Your task to perform on an android device: Go to sound settings Image 0: 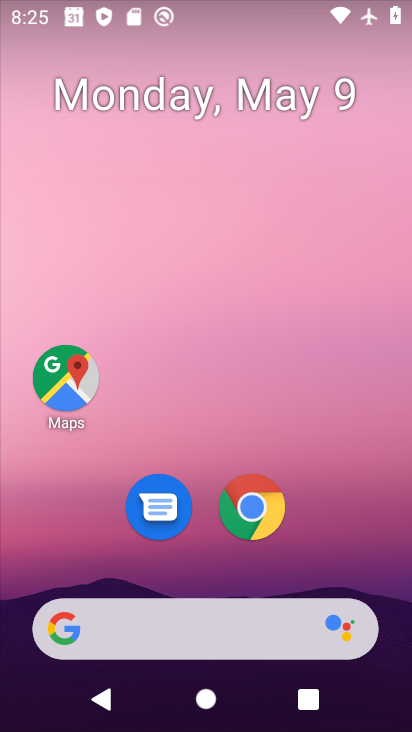
Step 0: drag from (208, 555) to (213, 0)
Your task to perform on an android device: Go to sound settings Image 1: 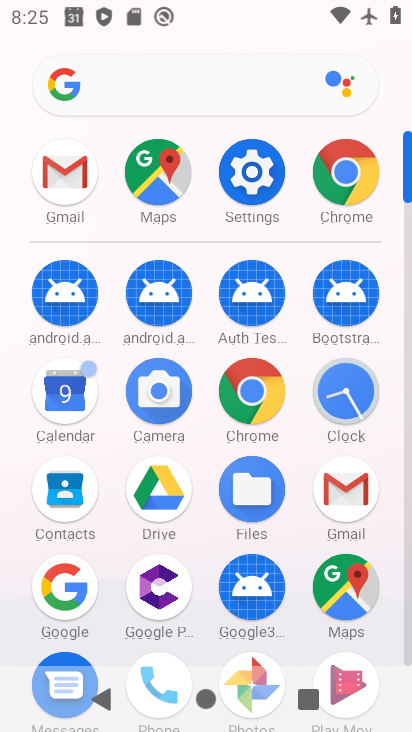
Step 1: click (261, 186)
Your task to perform on an android device: Go to sound settings Image 2: 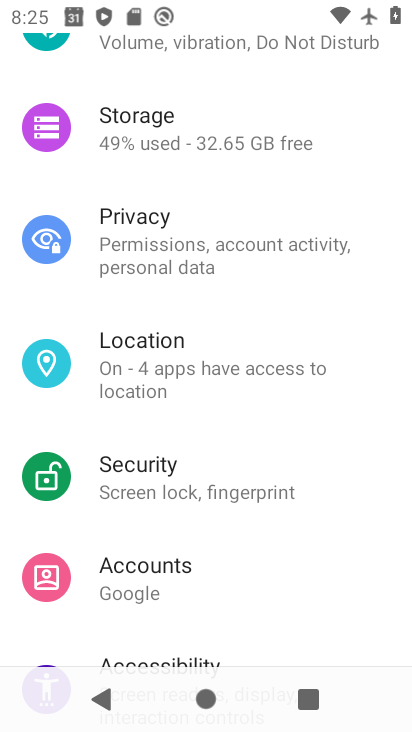
Step 2: drag from (256, 207) to (229, 604)
Your task to perform on an android device: Go to sound settings Image 3: 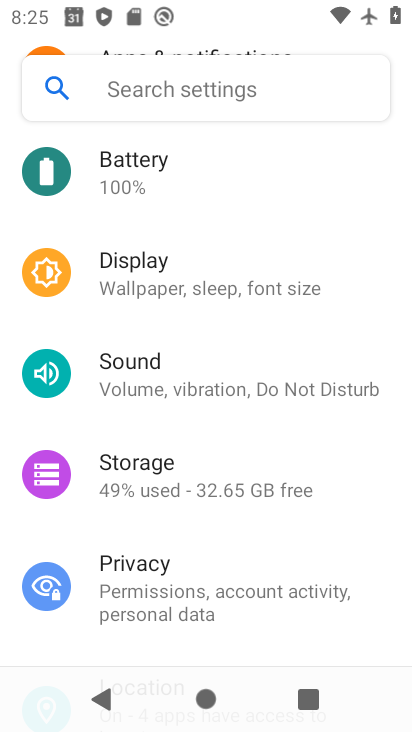
Step 3: drag from (173, 222) to (129, 621)
Your task to perform on an android device: Go to sound settings Image 4: 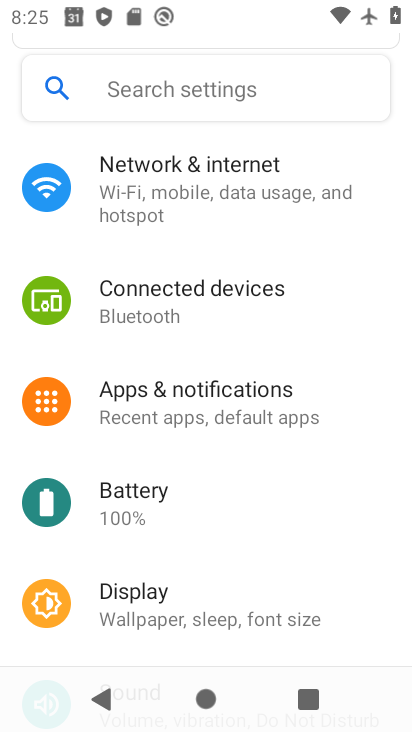
Step 4: drag from (184, 488) to (187, 230)
Your task to perform on an android device: Go to sound settings Image 5: 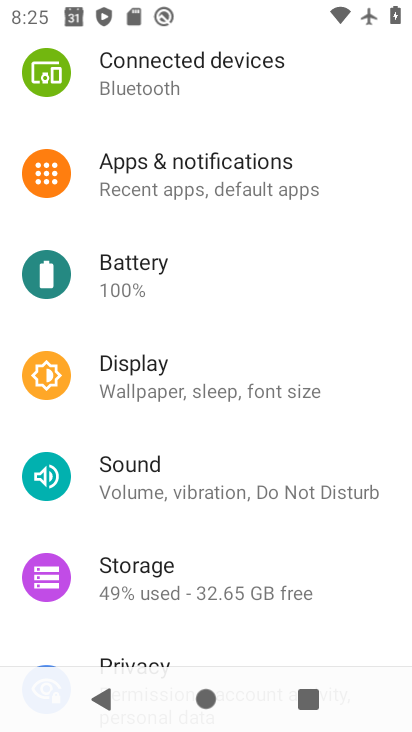
Step 5: click (144, 458)
Your task to perform on an android device: Go to sound settings Image 6: 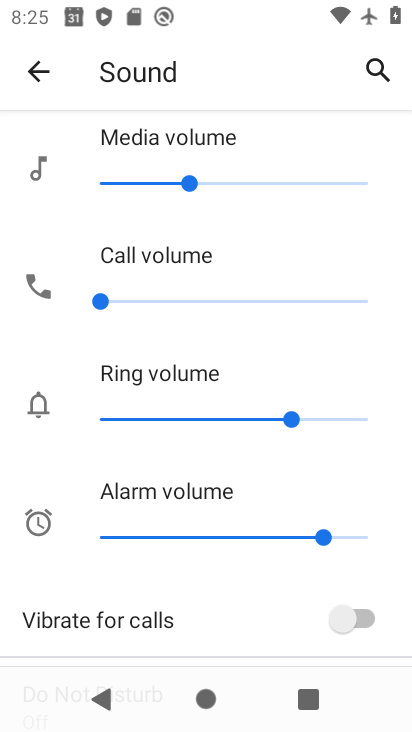
Step 6: task complete